Your task to perform on an android device: toggle data saver in the chrome app Image 0: 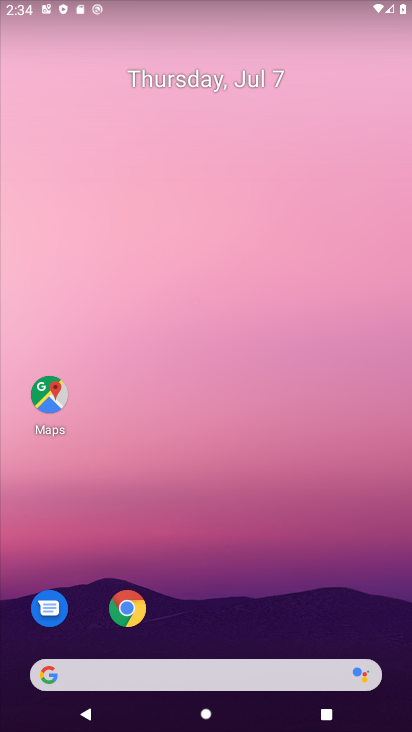
Step 0: click (128, 613)
Your task to perform on an android device: toggle data saver in the chrome app Image 1: 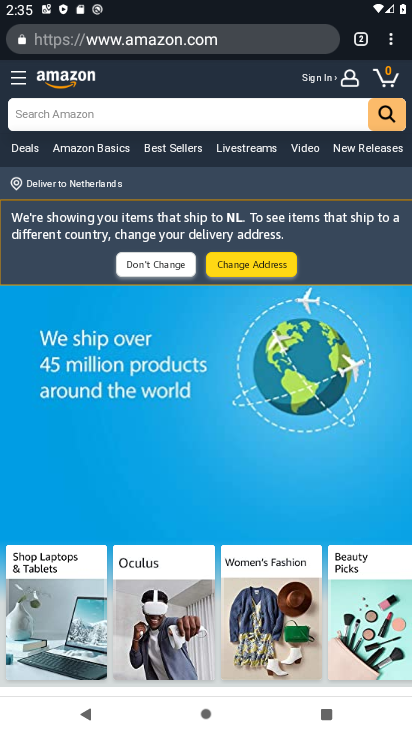
Step 1: click (390, 43)
Your task to perform on an android device: toggle data saver in the chrome app Image 2: 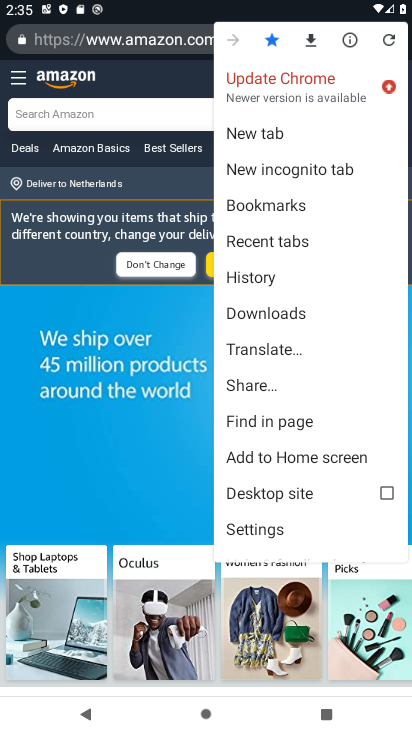
Step 2: click (258, 532)
Your task to perform on an android device: toggle data saver in the chrome app Image 3: 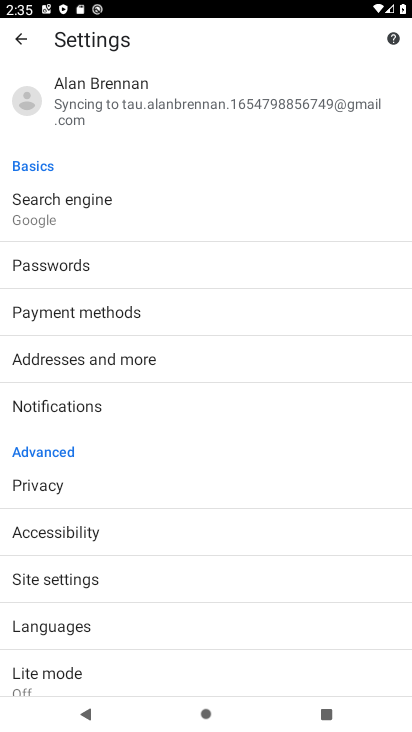
Step 3: drag from (183, 640) to (280, 308)
Your task to perform on an android device: toggle data saver in the chrome app Image 4: 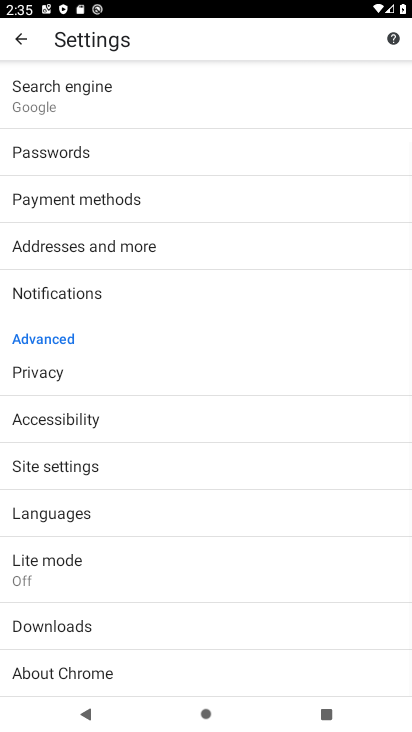
Step 4: drag from (208, 630) to (208, 342)
Your task to perform on an android device: toggle data saver in the chrome app Image 5: 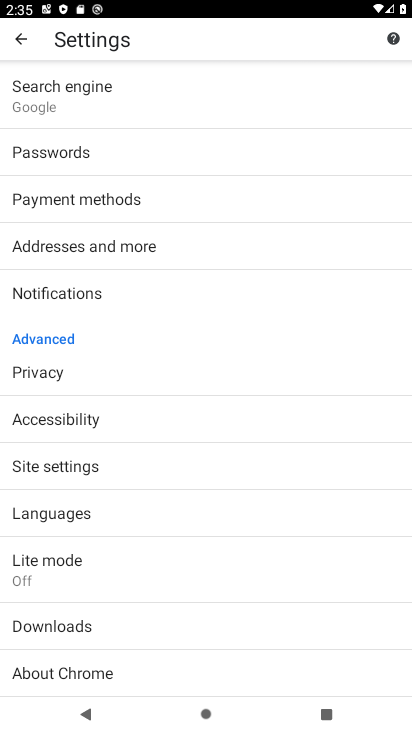
Step 5: click (49, 561)
Your task to perform on an android device: toggle data saver in the chrome app Image 6: 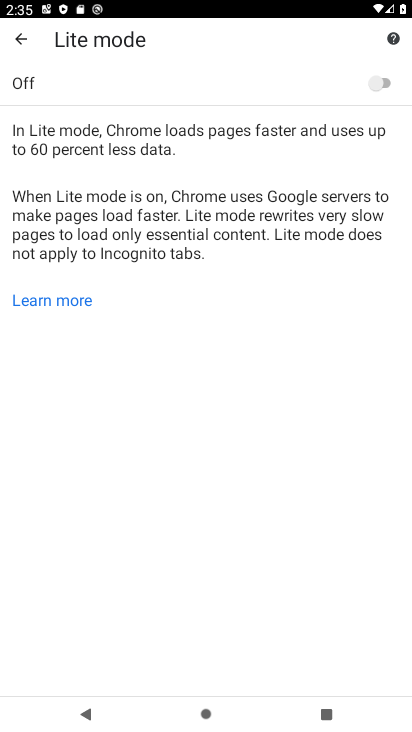
Step 6: click (387, 83)
Your task to perform on an android device: toggle data saver in the chrome app Image 7: 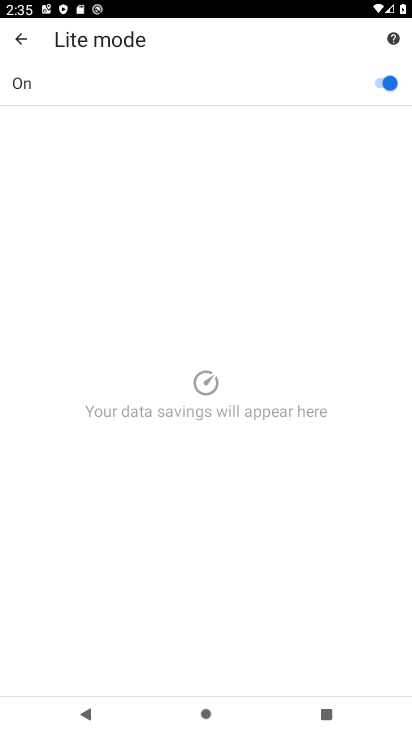
Step 7: task complete